Your task to perform on an android device: Open accessibility settings Image 0: 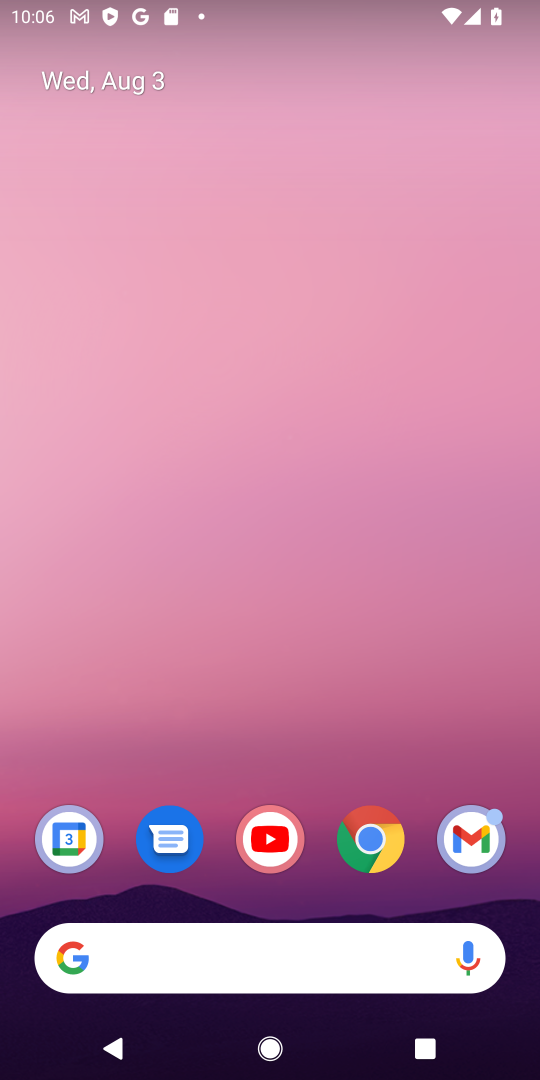
Step 0: drag from (215, 342) to (236, 262)
Your task to perform on an android device: Open accessibility settings Image 1: 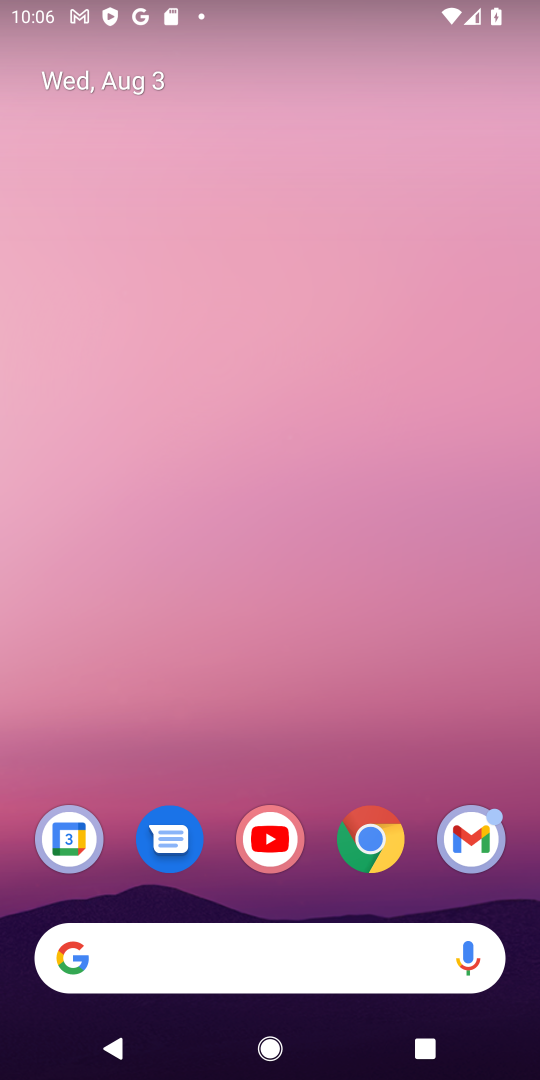
Step 1: drag from (224, 312) to (364, 502)
Your task to perform on an android device: Open accessibility settings Image 2: 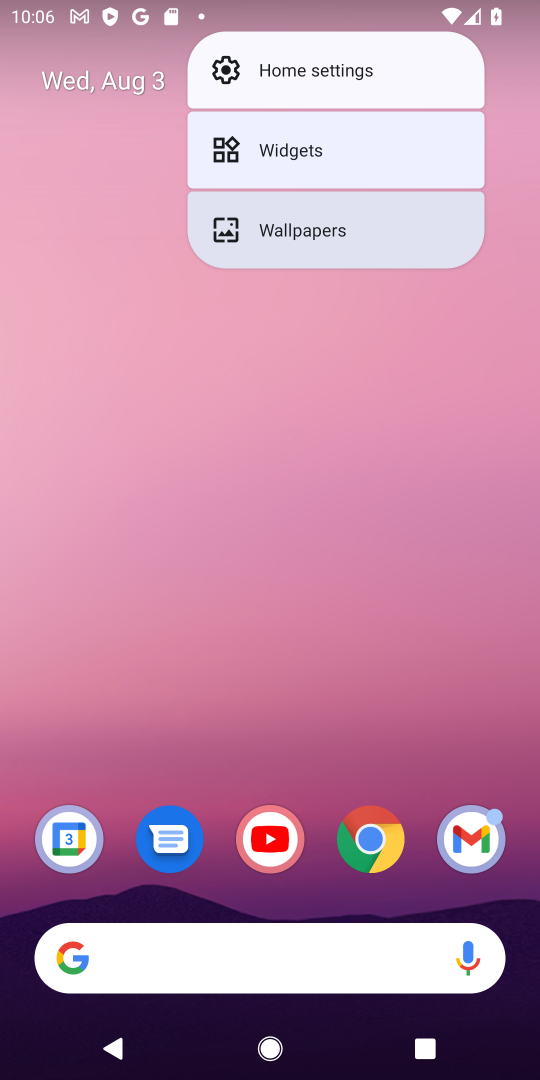
Step 2: drag from (257, 774) to (336, 24)
Your task to perform on an android device: Open accessibility settings Image 3: 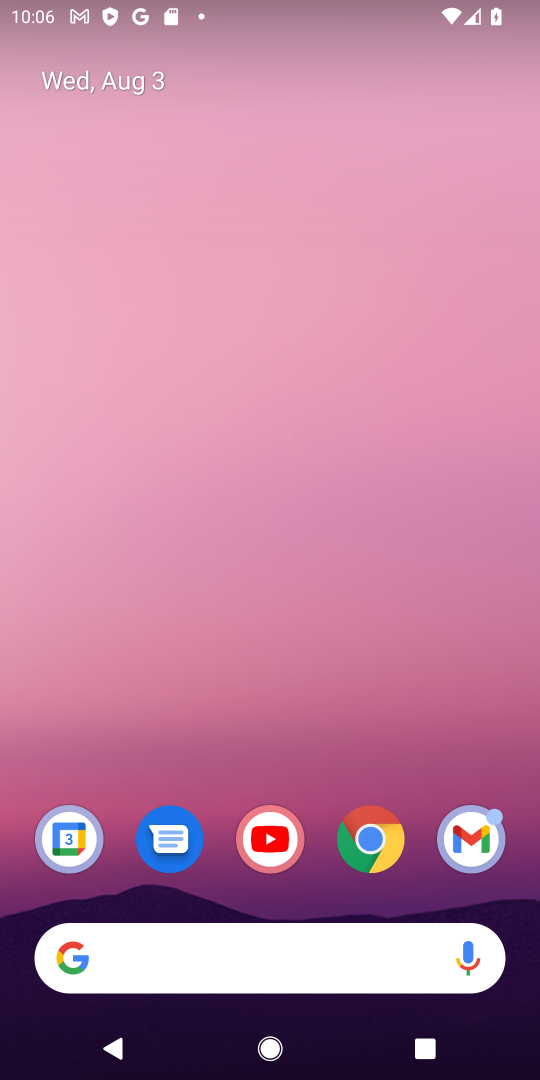
Step 3: drag from (303, 813) to (354, 6)
Your task to perform on an android device: Open accessibility settings Image 4: 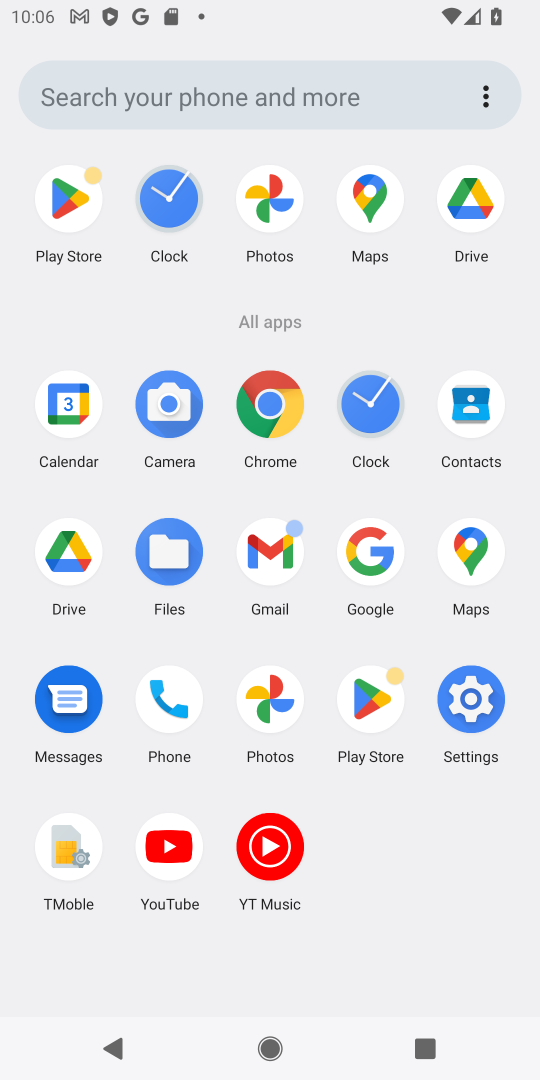
Step 4: click (469, 719)
Your task to perform on an android device: Open accessibility settings Image 5: 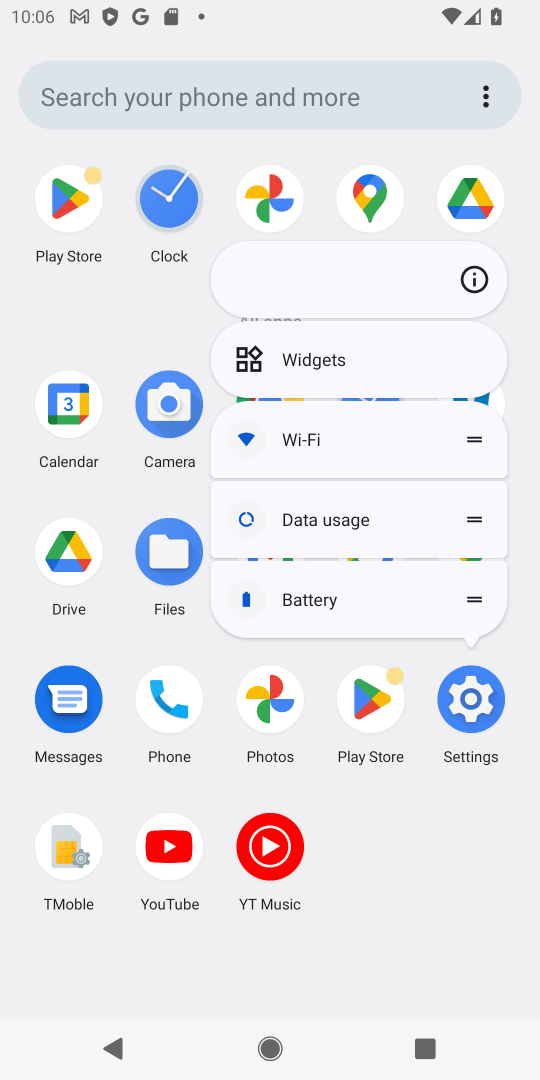
Step 5: click (483, 708)
Your task to perform on an android device: Open accessibility settings Image 6: 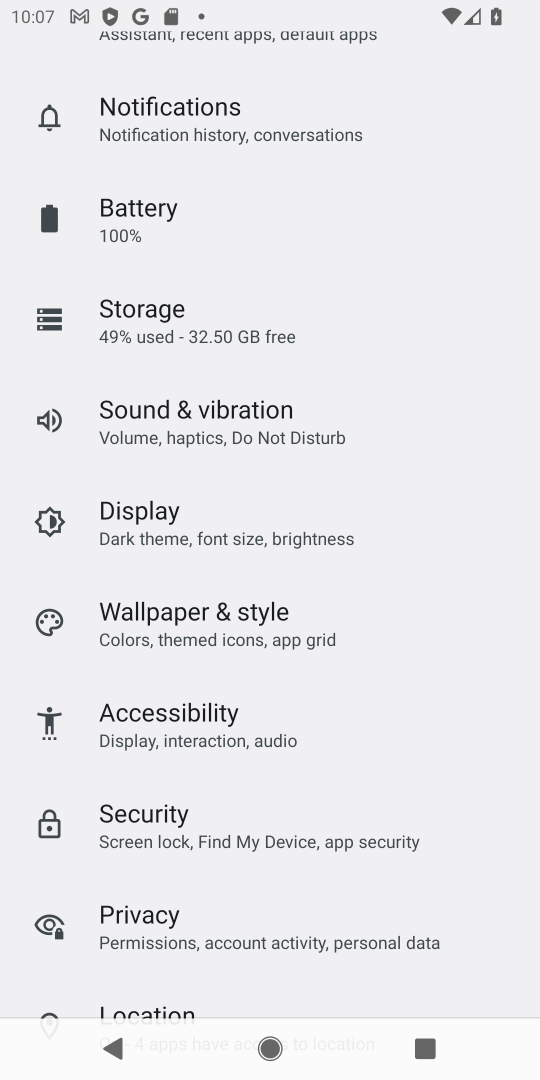
Step 6: click (208, 735)
Your task to perform on an android device: Open accessibility settings Image 7: 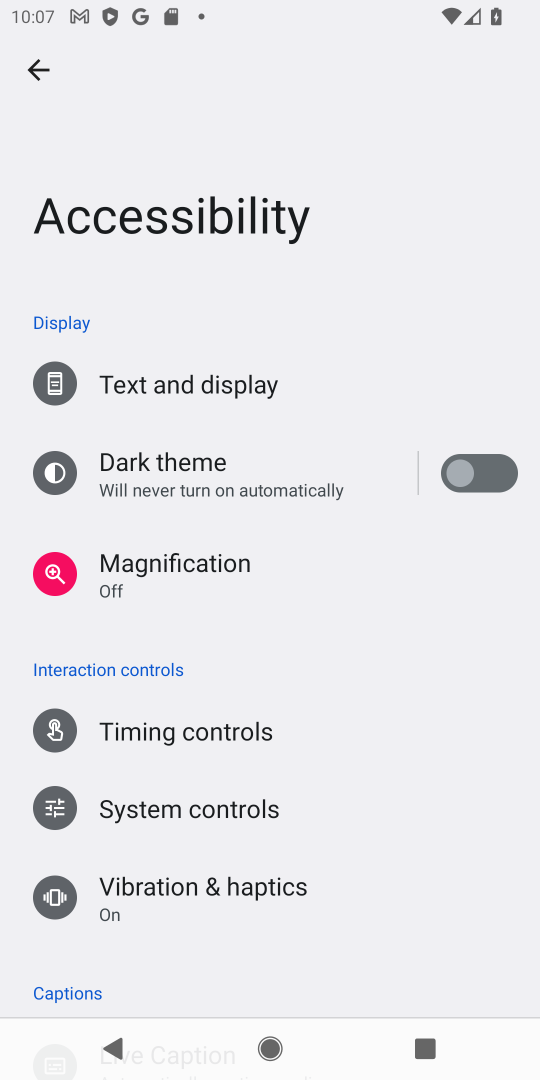
Step 7: task complete